Your task to perform on an android device: change timer sound Image 0: 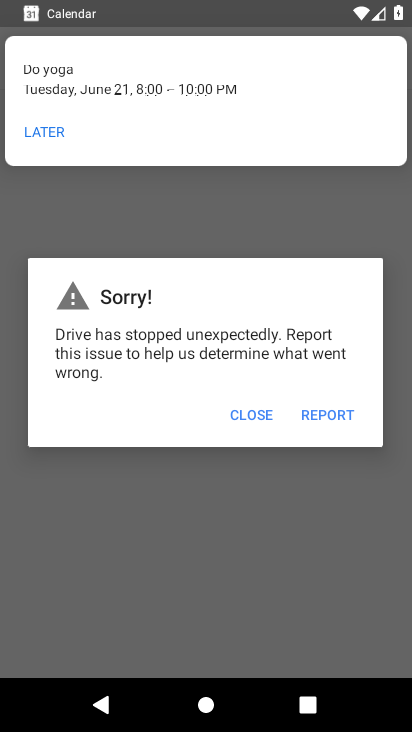
Step 0: press home button
Your task to perform on an android device: change timer sound Image 1: 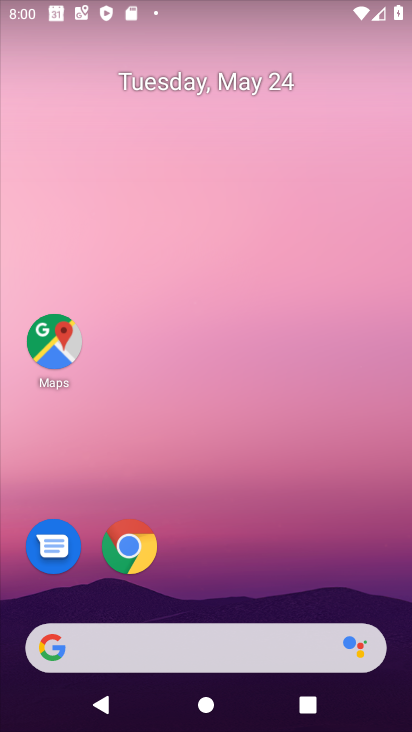
Step 1: drag from (214, 565) to (250, 0)
Your task to perform on an android device: change timer sound Image 2: 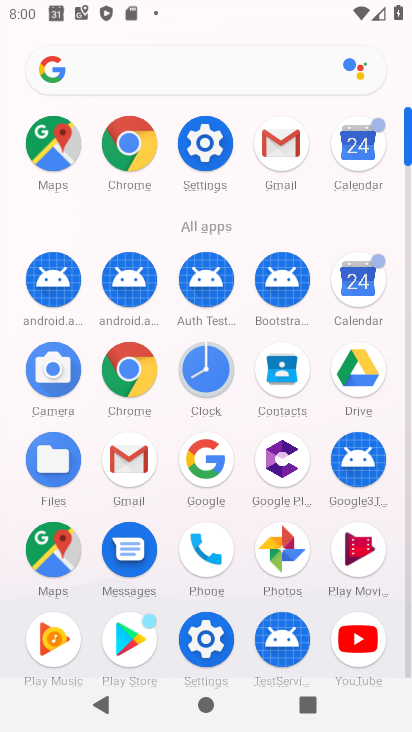
Step 2: click (215, 384)
Your task to perform on an android device: change timer sound Image 3: 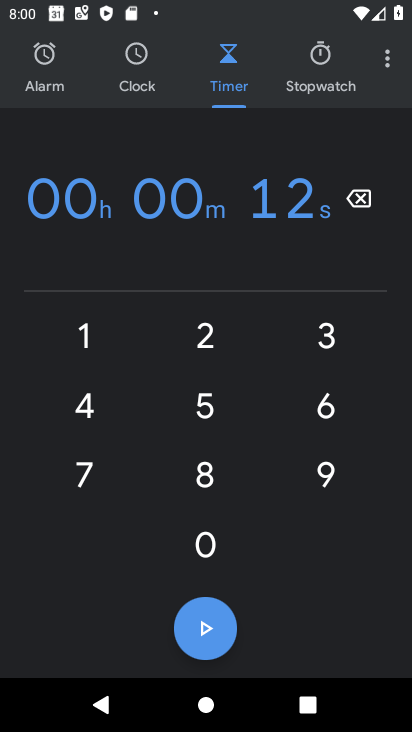
Step 3: click (386, 61)
Your task to perform on an android device: change timer sound Image 4: 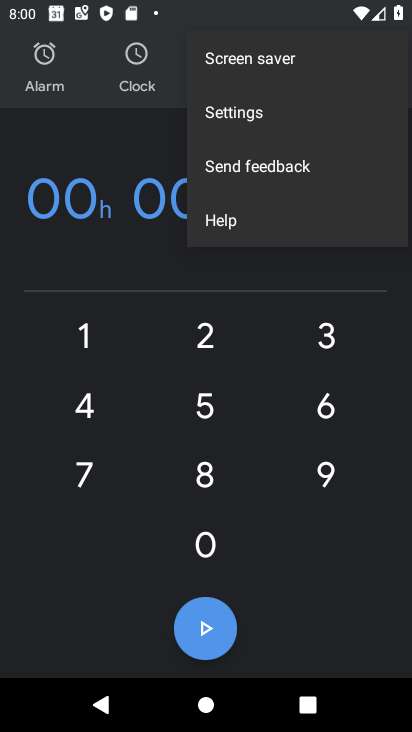
Step 4: click (288, 111)
Your task to perform on an android device: change timer sound Image 5: 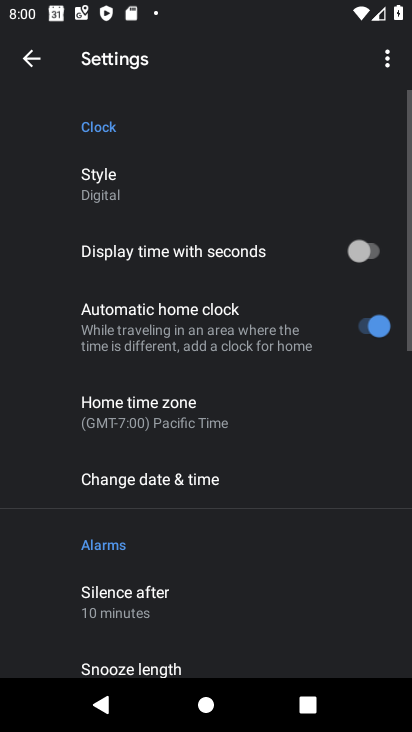
Step 5: drag from (217, 589) to (243, 1)
Your task to perform on an android device: change timer sound Image 6: 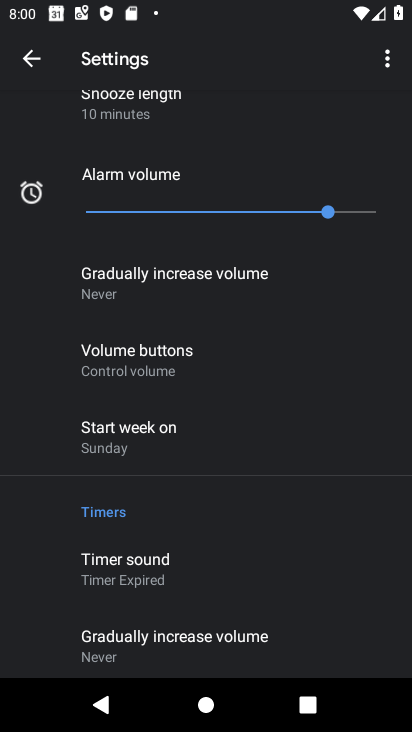
Step 6: click (149, 559)
Your task to perform on an android device: change timer sound Image 7: 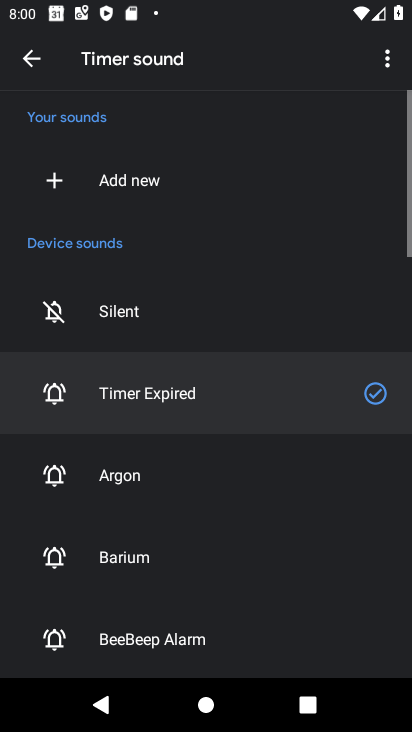
Step 7: click (147, 551)
Your task to perform on an android device: change timer sound Image 8: 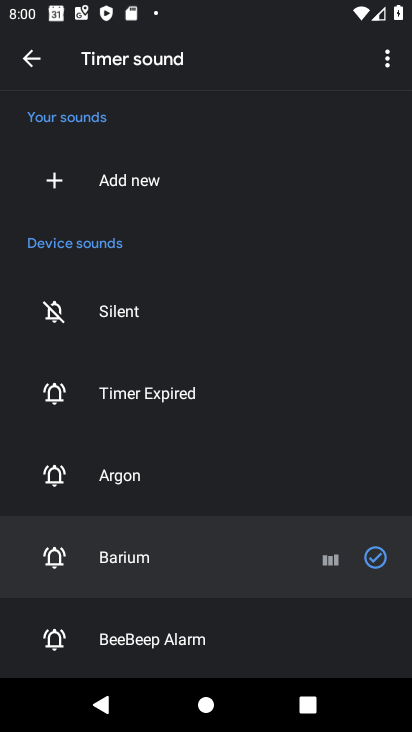
Step 8: task complete